Your task to perform on an android device: Go to Yahoo.com Image 0: 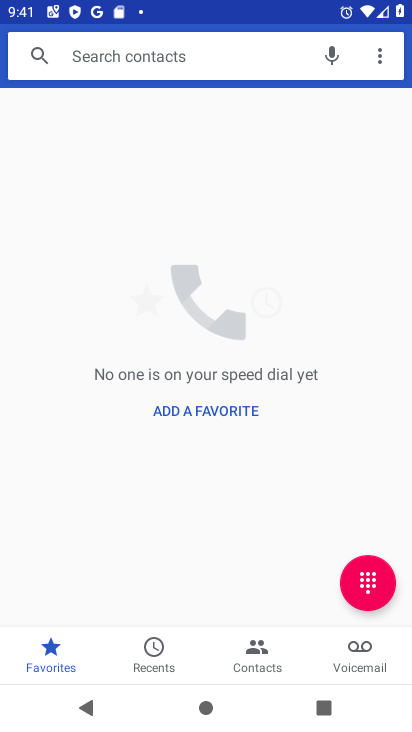
Step 0: press home button
Your task to perform on an android device: Go to Yahoo.com Image 1: 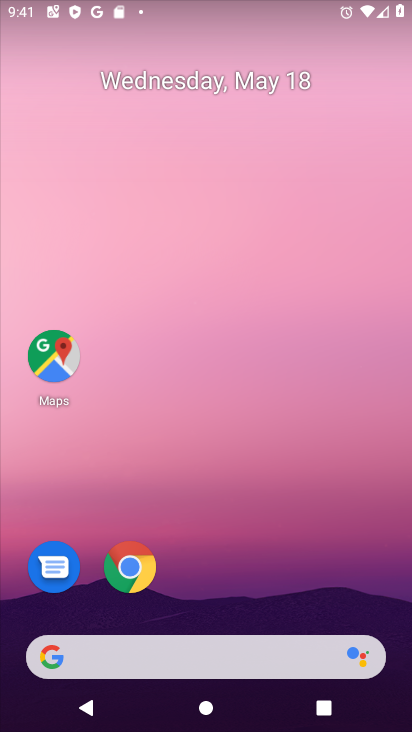
Step 1: click (141, 567)
Your task to perform on an android device: Go to Yahoo.com Image 2: 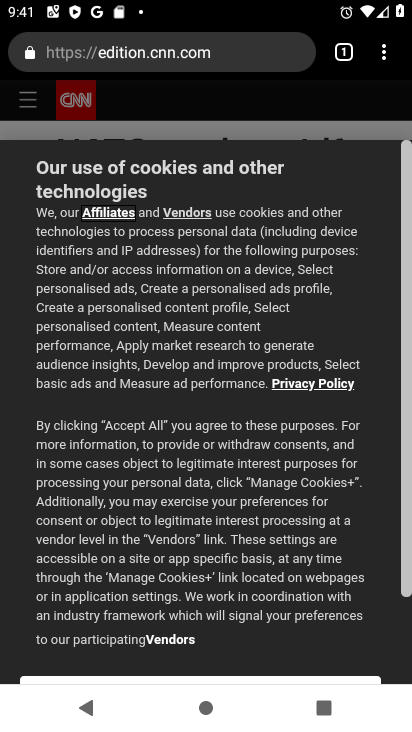
Step 2: click (181, 48)
Your task to perform on an android device: Go to Yahoo.com Image 3: 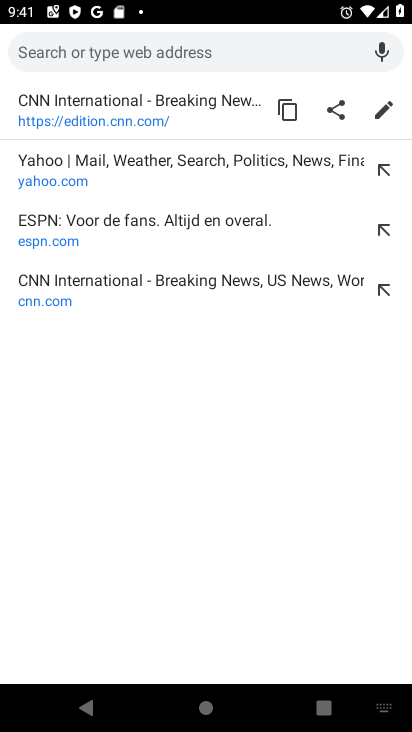
Step 3: click (166, 173)
Your task to perform on an android device: Go to Yahoo.com Image 4: 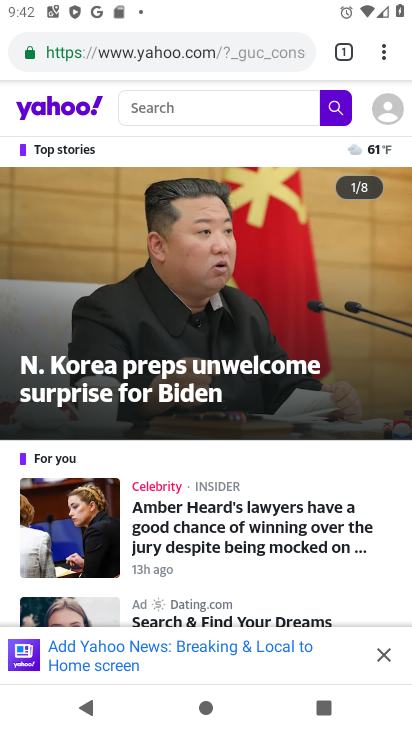
Step 4: task complete